Your task to perform on an android device: turn on javascript in the chrome app Image 0: 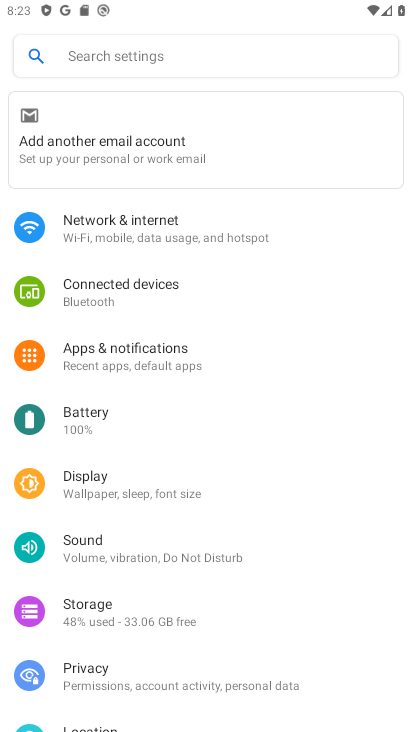
Step 0: press home button
Your task to perform on an android device: turn on javascript in the chrome app Image 1: 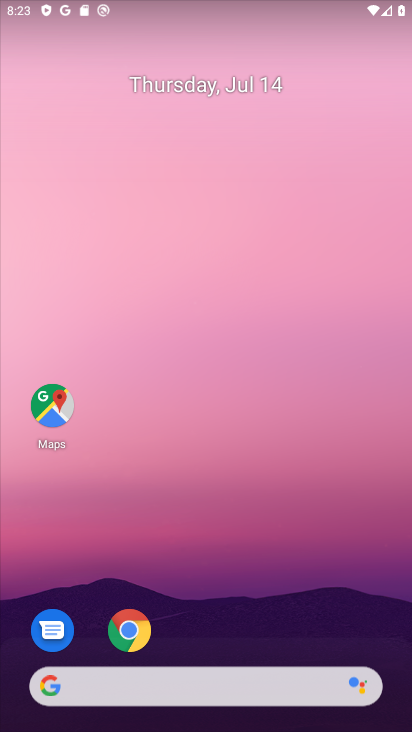
Step 1: click (127, 642)
Your task to perform on an android device: turn on javascript in the chrome app Image 2: 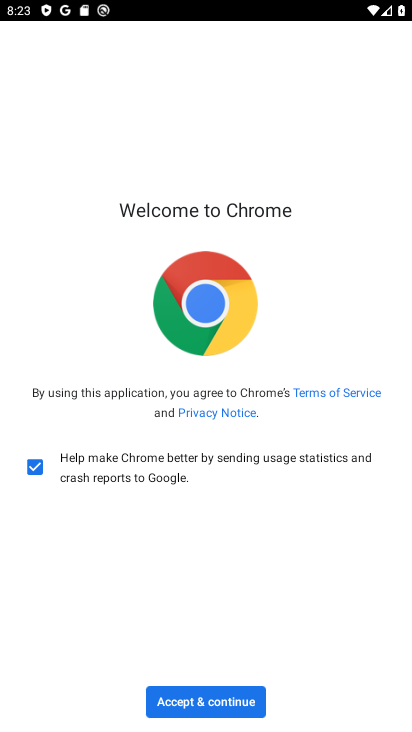
Step 2: click (202, 697)
Your task to perform on an android device: turn on javascript in the chrome app Image 3: 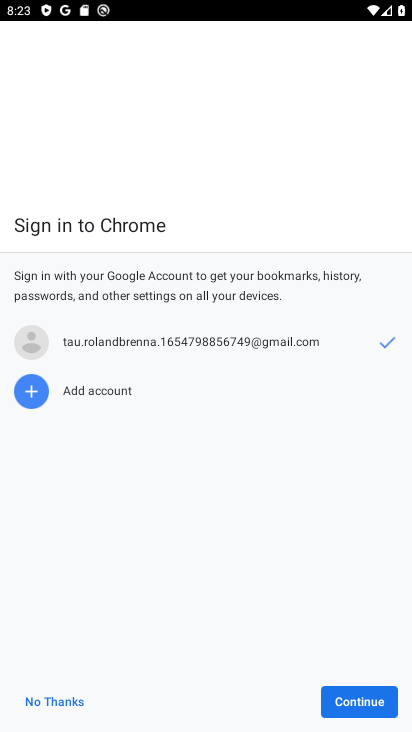
Step 3: click (377, 692)
Your task to perform on an android device: turn on javascript in the chrome app Image 4: 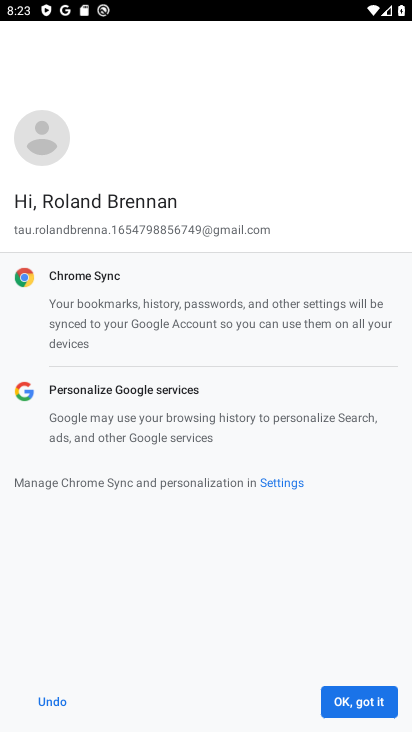
Step 4: click (377, 700)
Your task to perform on an android device: turn on javascript in the chrome app Image 5: 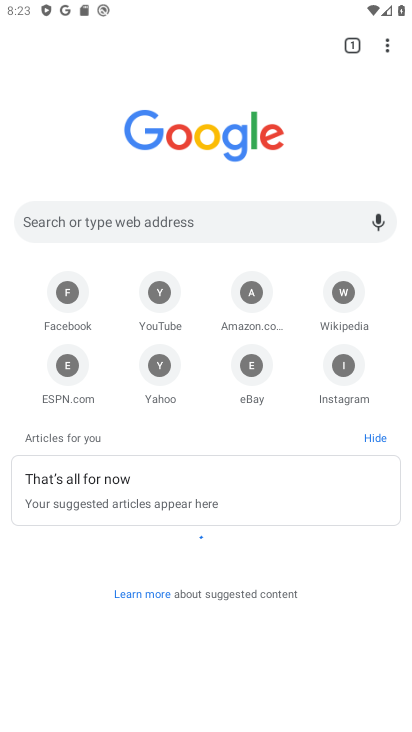
Step 5: click (389, 42)
Your task to perform on an android device: turn on javascript in the chrome app Image 6: 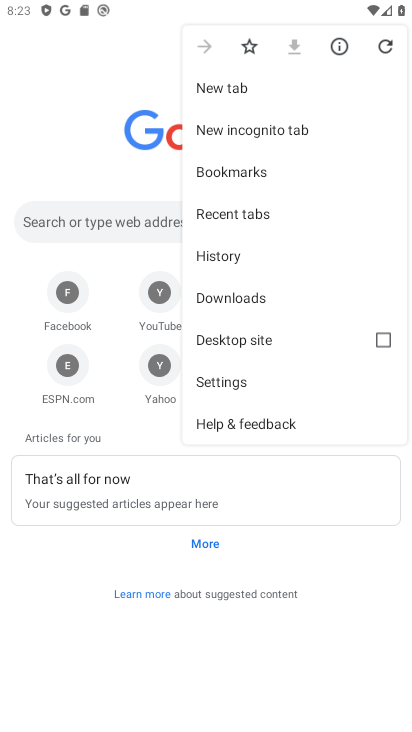
Step 6: click (286, 376)
Your task to perform on an android device: turn on javascript in the chrome app Image 7: 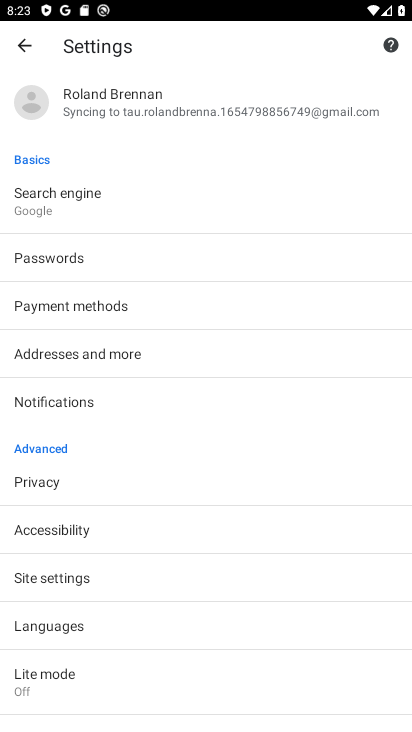
Step 7: click (143, 570)
Your task to perform on an android device: turn on javascript in the chrome app Image 8: 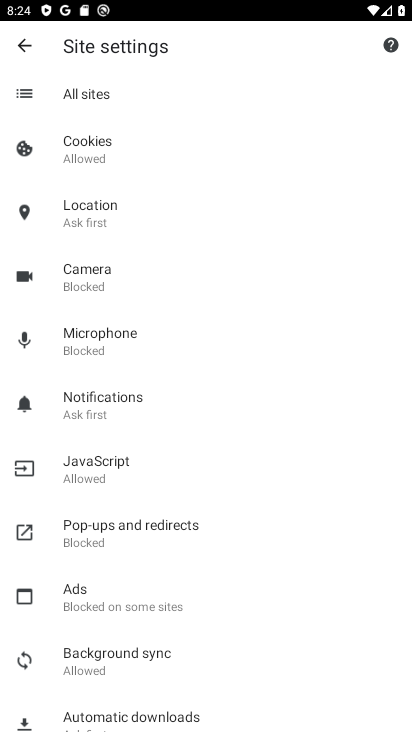
Step 8: click (146, 464)
Your task to perform on an android device: turn on javascript in the chrome app Image 9: 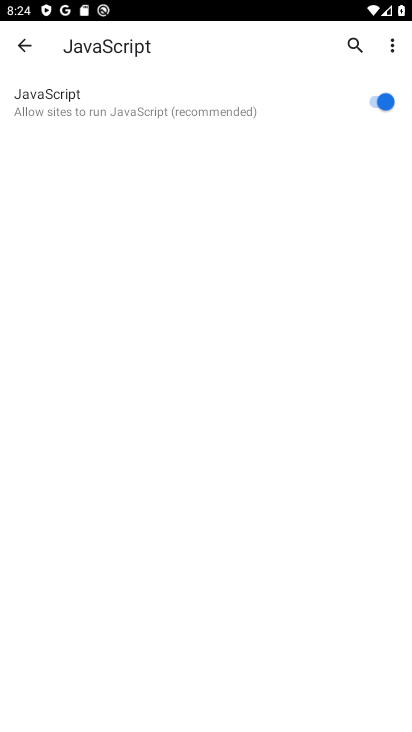
Step 9: task complete